Your task to perform on an android device: What is the recent news? Image 0: 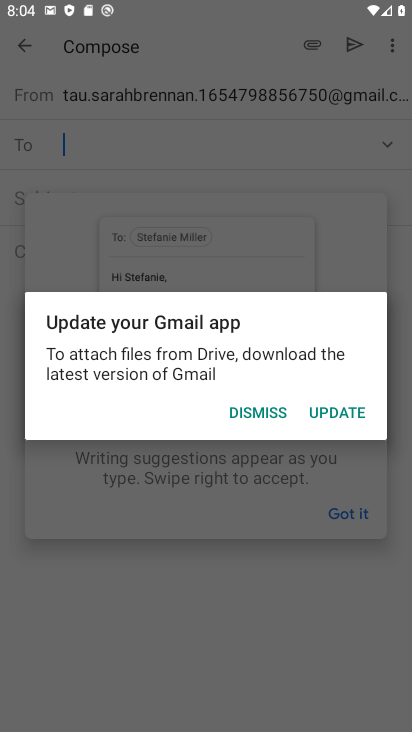
Step 0: press home button
Your task to perform on an android device: What is the recent news? Image 1: 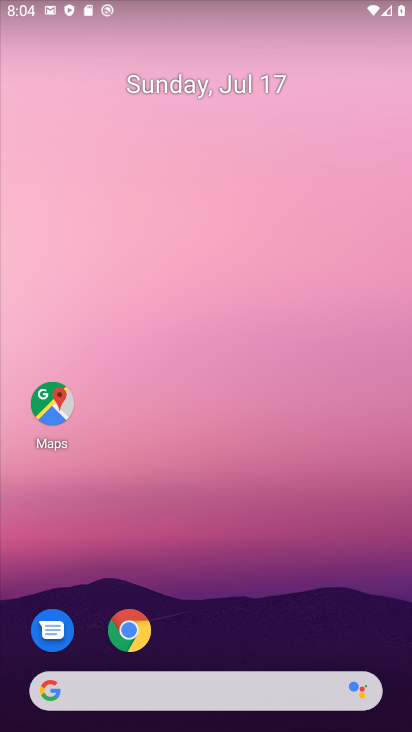
Step 1: click (201, 690)
Your task to perform on an android device: What is the recent news? Image 2: 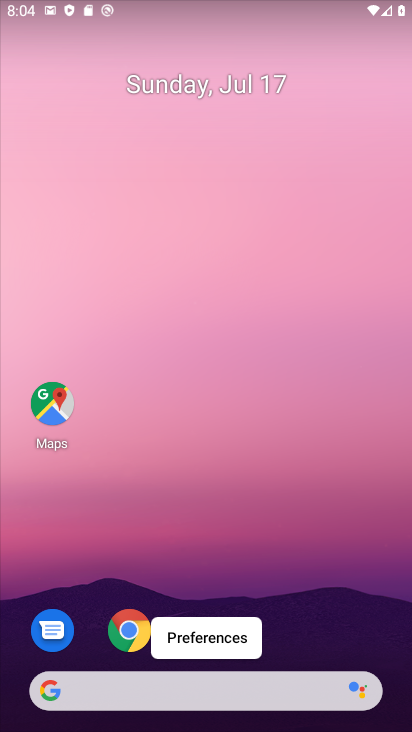
Step 2: click (200, 689)
Your task to perform on an android device: What is the recent news? Image 3: 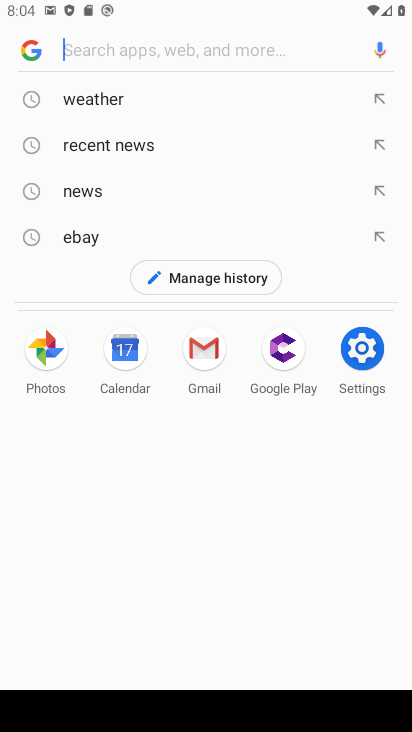
Step 3: click (118, 142)
Your task to perform on an android device: What is the recent news? Image 4: 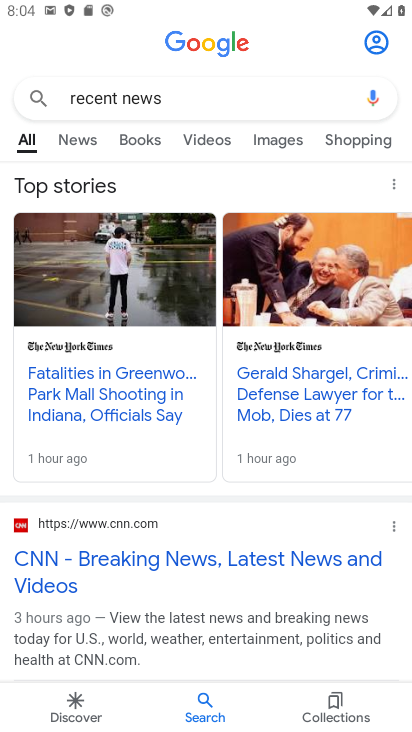
Step 4: task complete